Your task to perform on an android device: add a contact in the contacts app Image 0: 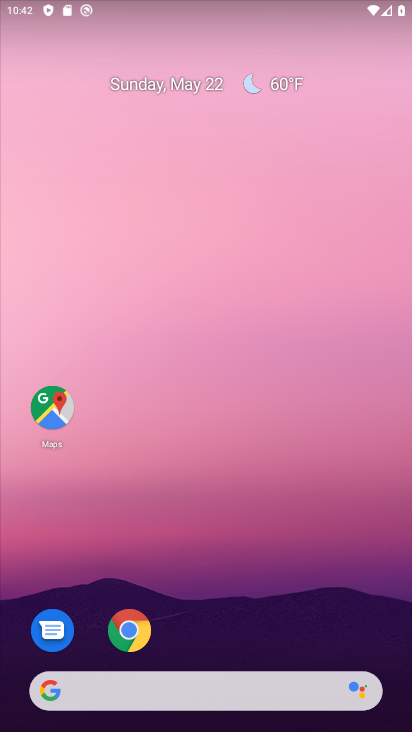
Step 0: drag from (258, 620) to (261, 80)
Your task to perform on an android device: add a contact in the contacts app Image 1: 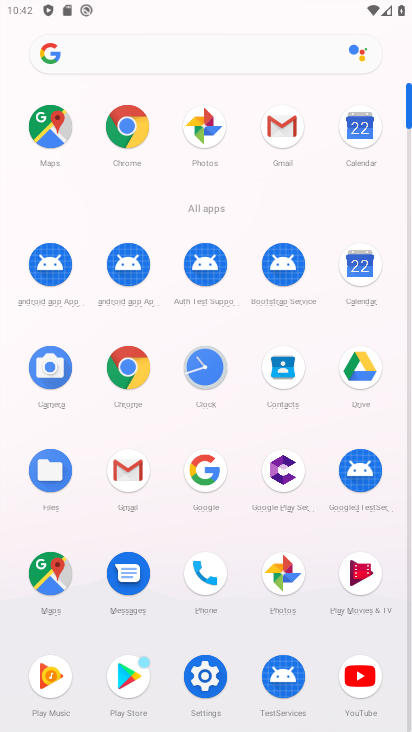
Step 1: click (283, 366)
Your task to perform on an android device: add a contact in the contacts app Image 2: 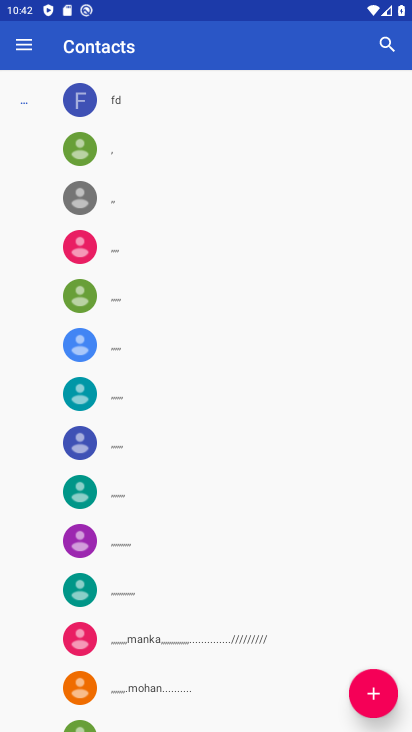
Step 2: click (374, 692)
Your task to perform on an android device: add a contact in the contacts app Image 3: 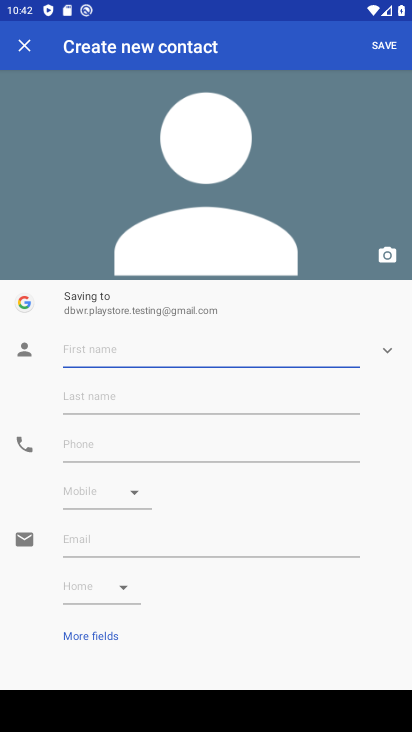
Step 3: click (212, 326)
Your task to perform on an android device: add a contact in the contacts app Image 4: 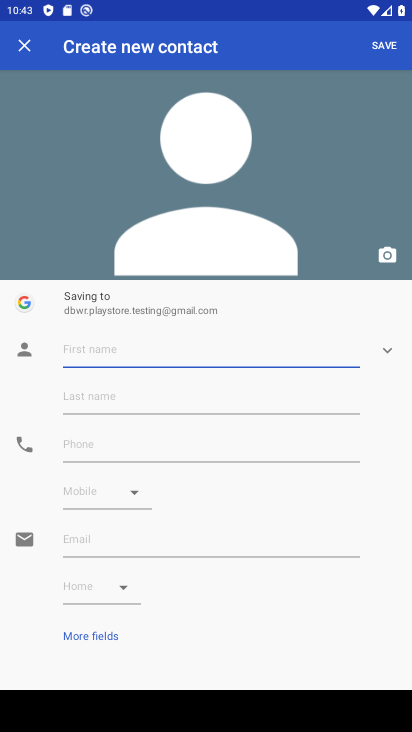
Step 4: type "Swatantra dev"
Your task to perform on an android device: add a contact in the contacts app Image 5: 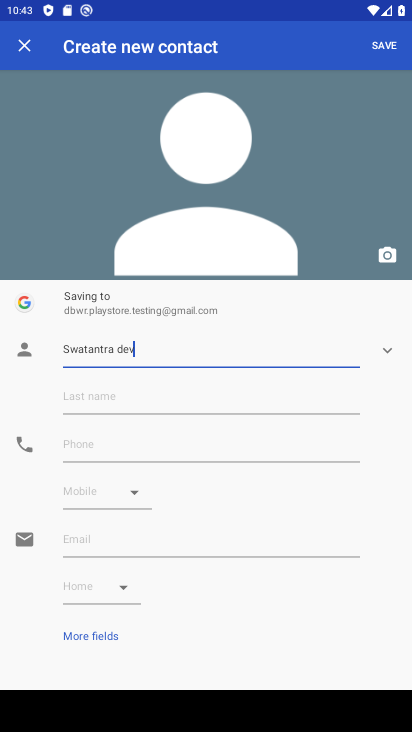
Step 5: type ""
Your task to perform on an android device: add a contact in the contacts app Image 6: 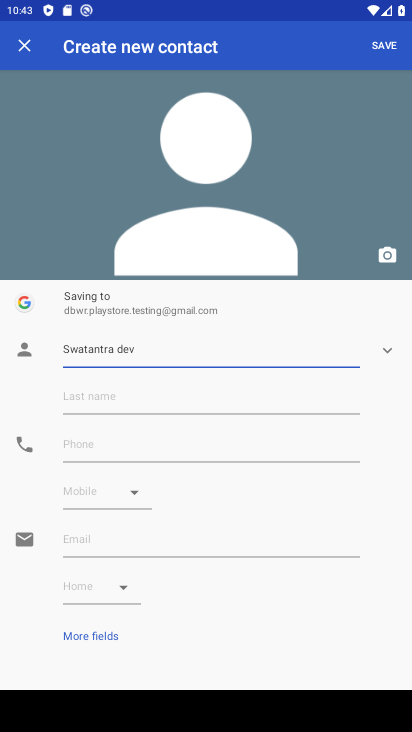
Step 6: click (160, 394)
Your task to perform on an android device: add a contact in the contacts app Image 7: 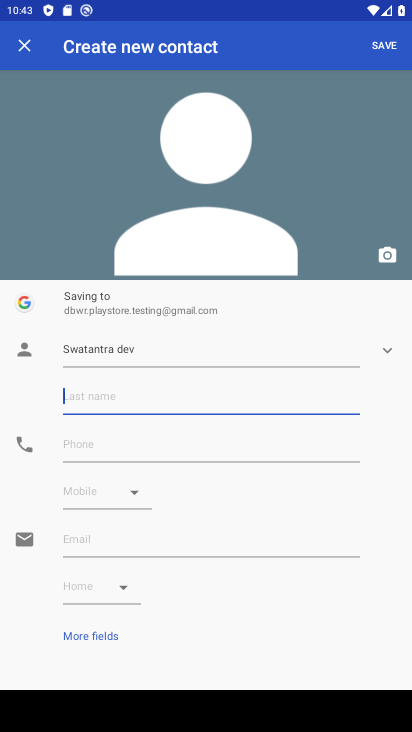
Step 7: type "Singh"
Your task to perform on an android device: add a contact in the contacts app Image 8: 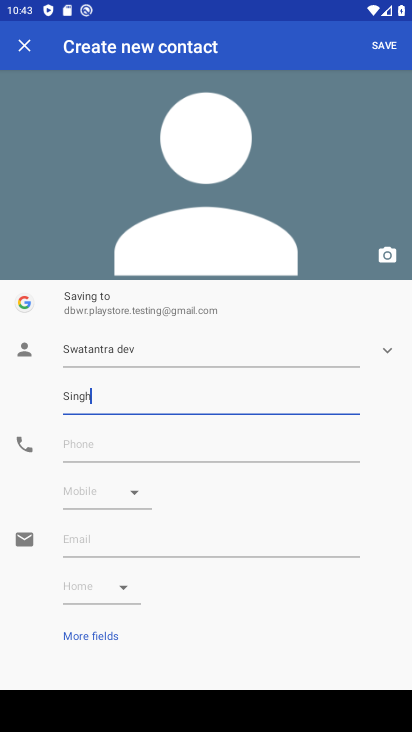
Step 8: click (132, 456)
Your task to perform on an android device: add a contact in the contacts app Image 9: 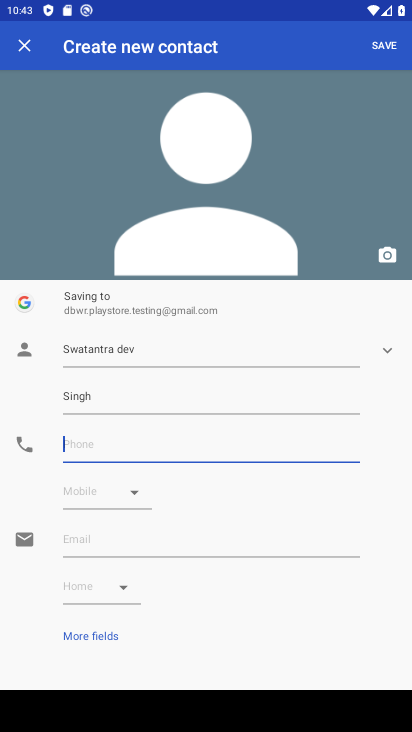
Step 9: type "09876512343"
Your task to perform on an android device: add a contact in the contacts app Image 10: 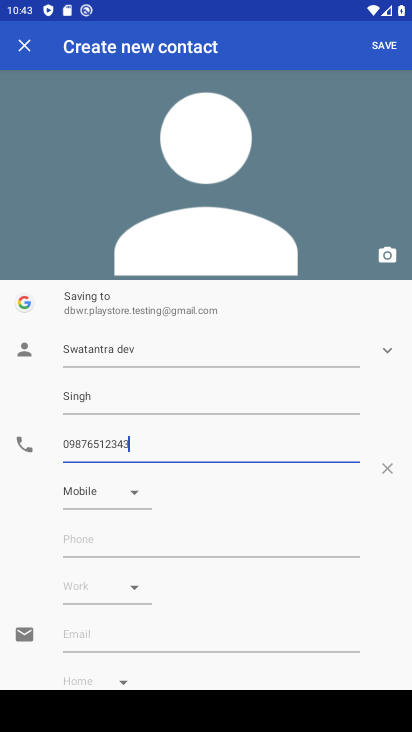
Step 10: click (377, 48)
Your task to perform on an android device: add a contact in the contacts app Image 11: 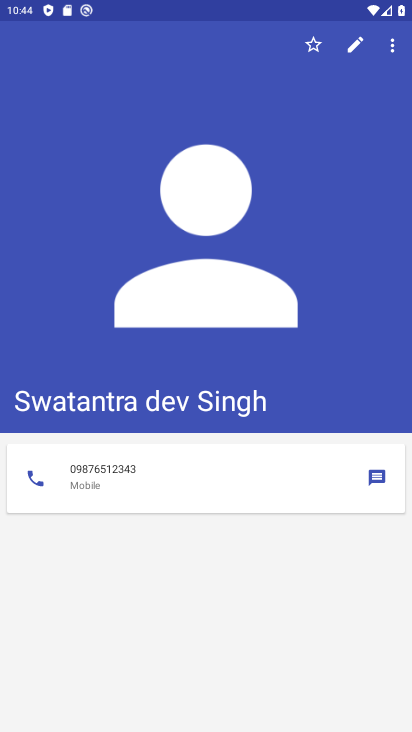
Step 11: task complete